Your task to perform on an android device: Open location settings Image 0: 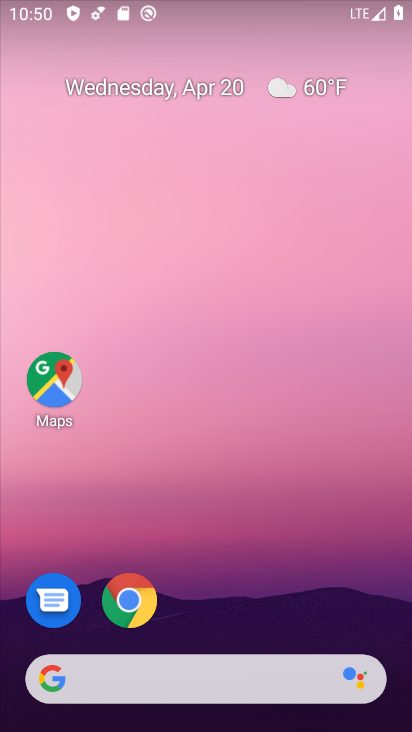
Step 0: drag from (259, 642) to (274, 143)
Your task to perform on an android device: Open location settings Image 1: 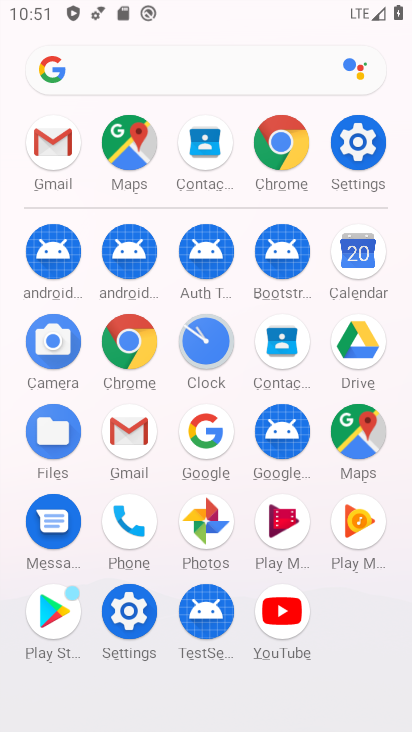
Step 1: click (126, 614)
Your task to perform on an android device: Open location settings Image 2: 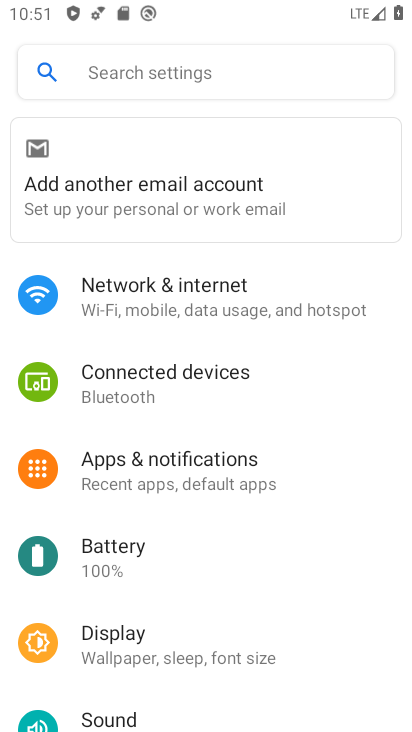
Step 2: drag from (228, 573) to (363, 74)
Your task to perform on an android device: Open location settings Image 3: 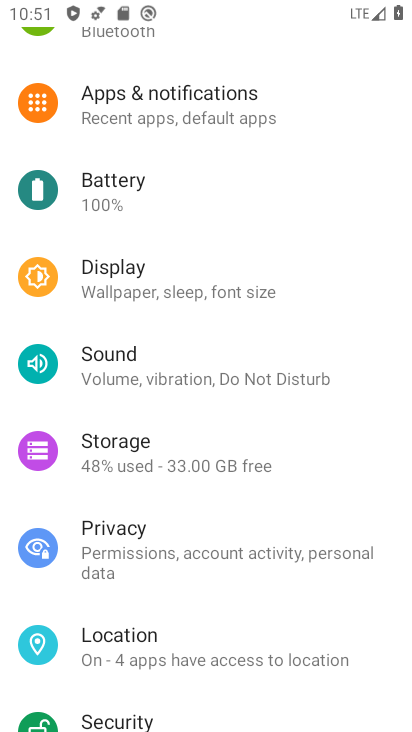
Step 3: click (203, 640)
Your task to perform on an android device: Open location settings Image 4: 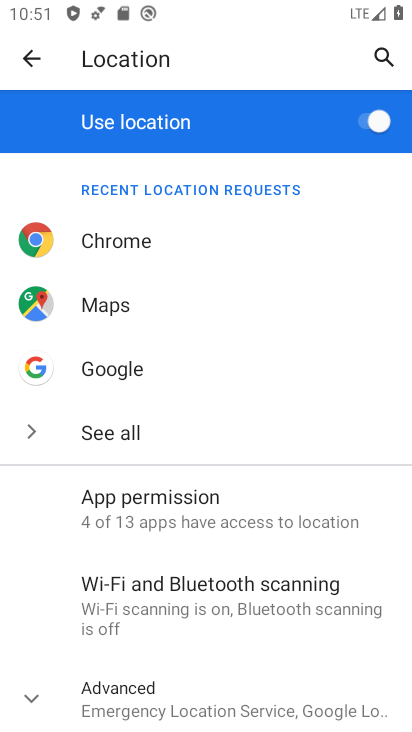
Step 4: task complete